Your task to perform on an android device: Check the news Image 0: 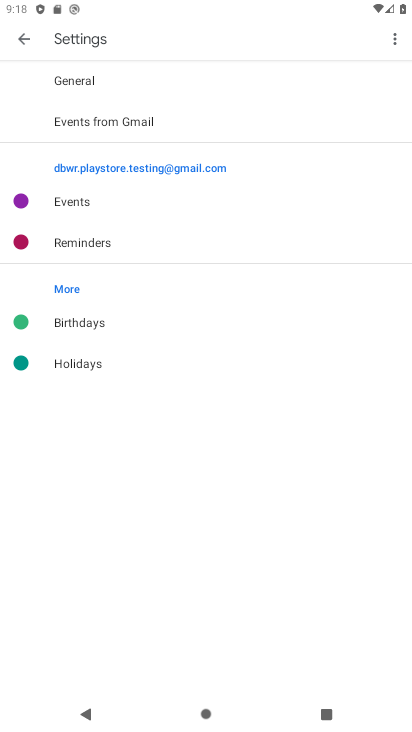
Step 0: press home button
Your task to perform on an android device: Check the news Image 1: 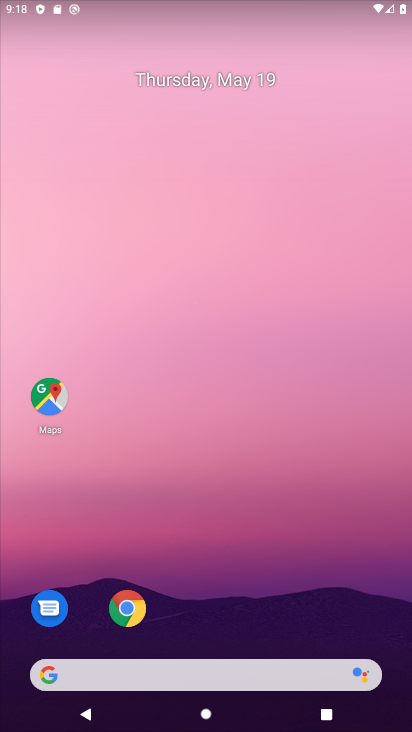
Step 1: click (124, 609)
Your task to perform on an android device: Check the news Image 2: 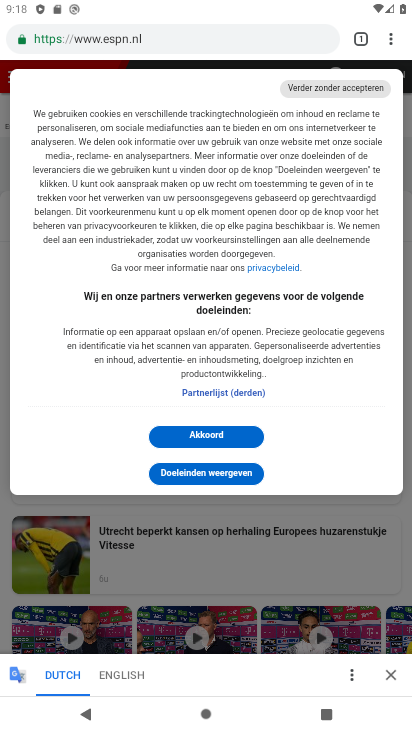
Step 2: press home button
Your task to perform on an android device: Check the news Image 3: 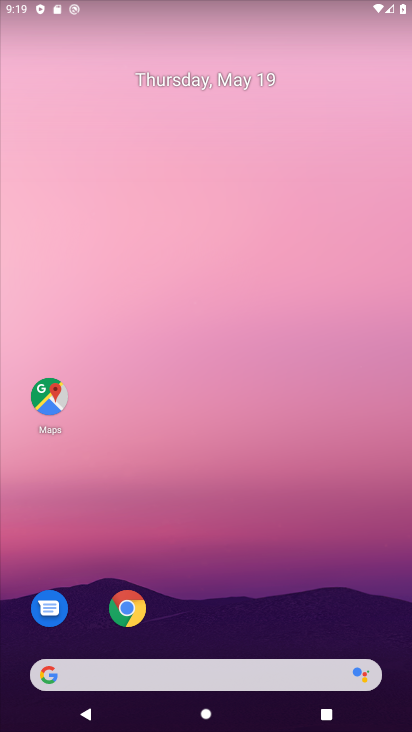
Step 3: click (124, 608)
Your task to perform on an android device: Check the news Image 4: 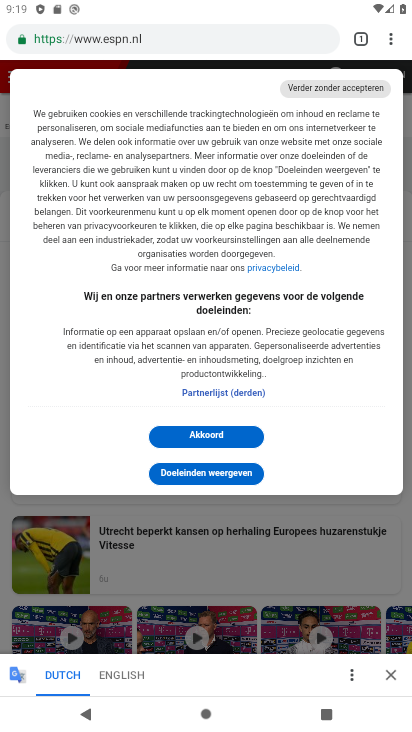
Step 4: click (126, 16)
Your task to perform on an android device: Check the news Image 5: 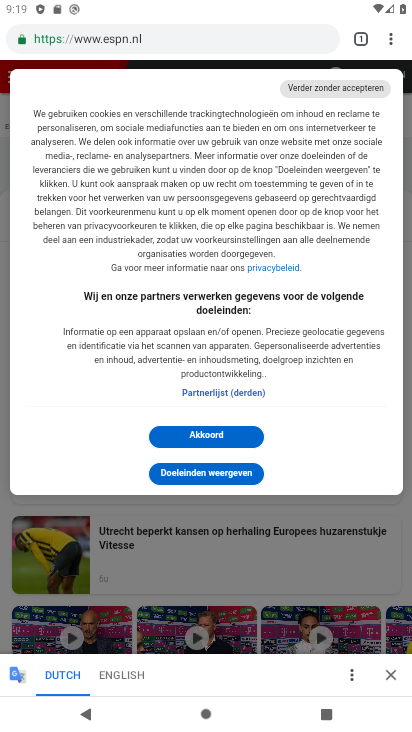
Step 5: click (120, 37)
Your task to perform on an android device: Check the news Image 6: 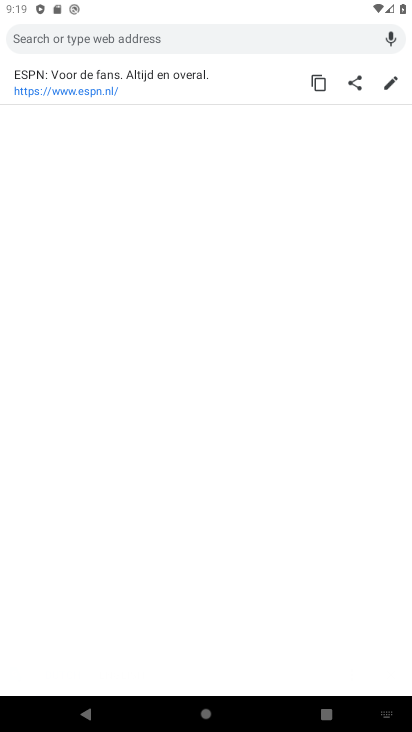
Step 6: type "news"
Your task to perform on an android device: Check the news Image 7: 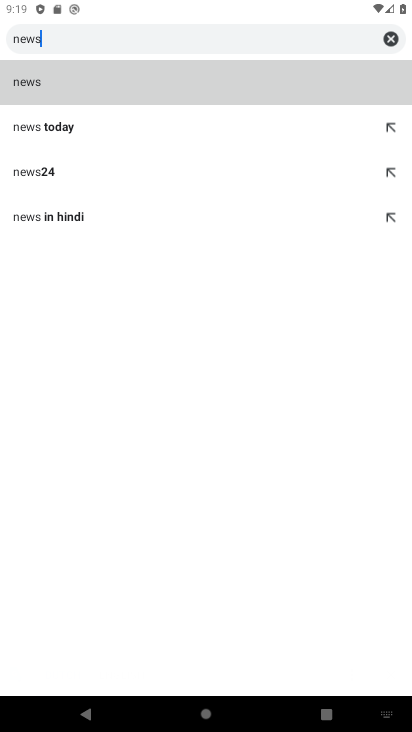
Step 7: click (110, 84)
Your task to perform on an android device: Check the news Image 8: 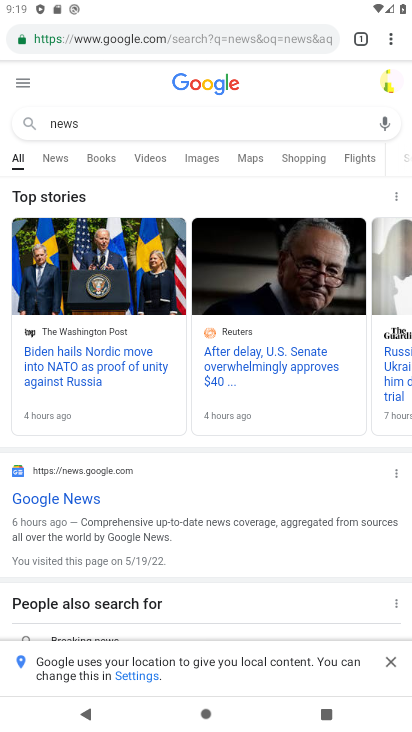
Step 8: task complete